Your task to perform on an android device: change the clock display to digital Image 0: 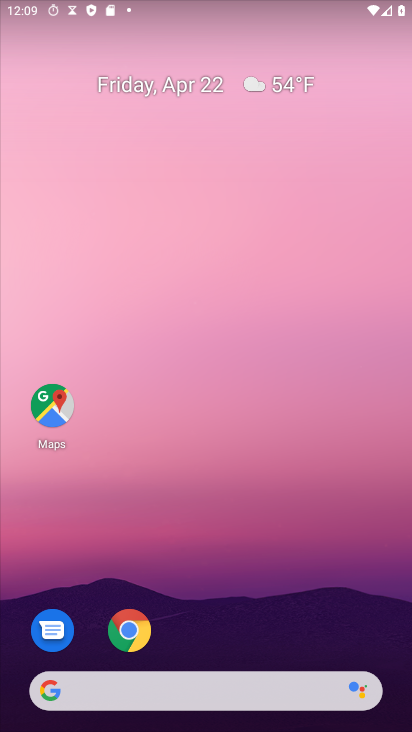
Step 0: drag from (187, 675) to (285, 163)
Your task to perform on an android device: change the clock display to digital Image 1: 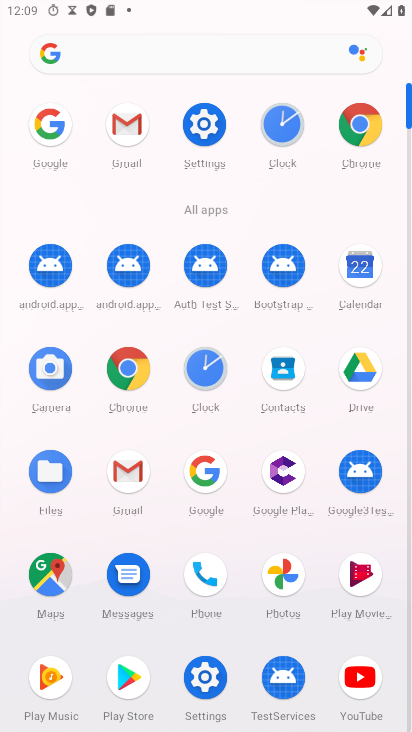
Step 1: click (203, 375)
Your task to perform on an android device: change the clock display to digital Image 2: 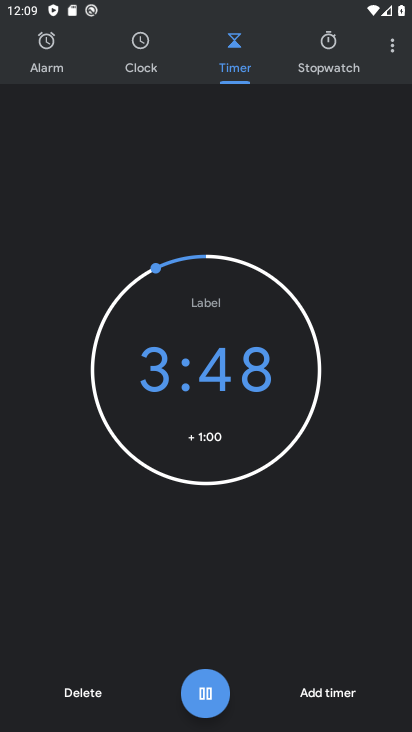
Step 2: click (395, 36)
Your task to perform on an android device: change the clock display to digital Image 3: 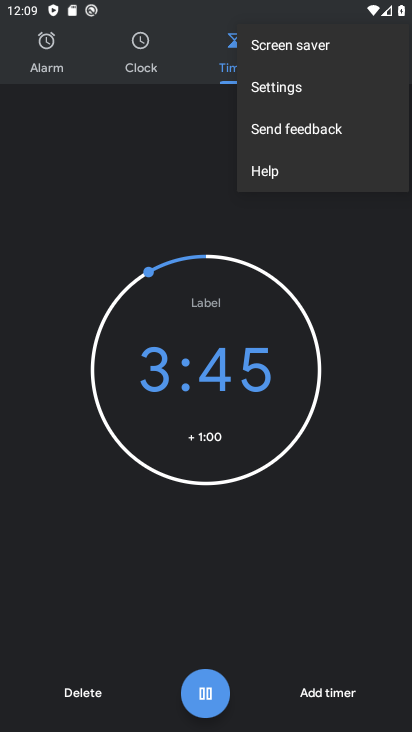
Step 3: click (282, 94)
Your task to perform on an android device: change the clock display to digital Image 4: 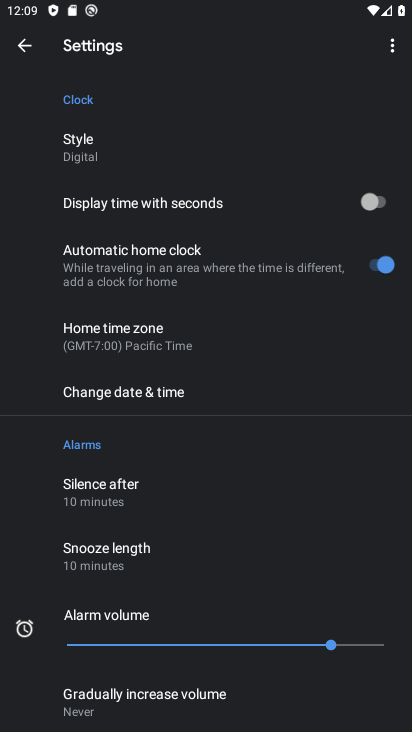
Step 4: click (69, 150)
Your task to perform on an android device: change the clock display to digital Image 5: 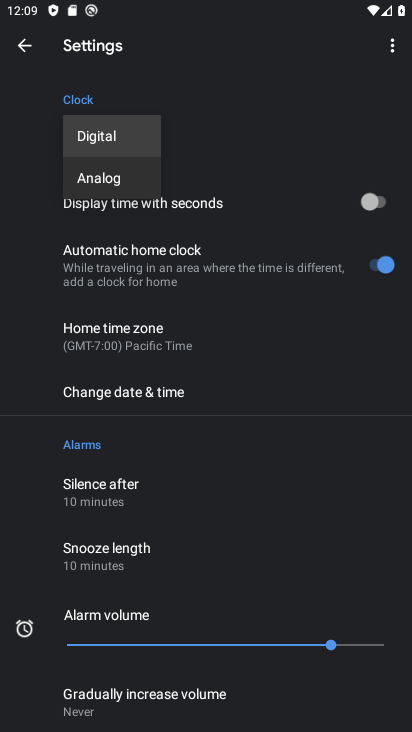
Step 5: task complete